Your task to perform on an android device: turn off notifications in google photos Image 0: 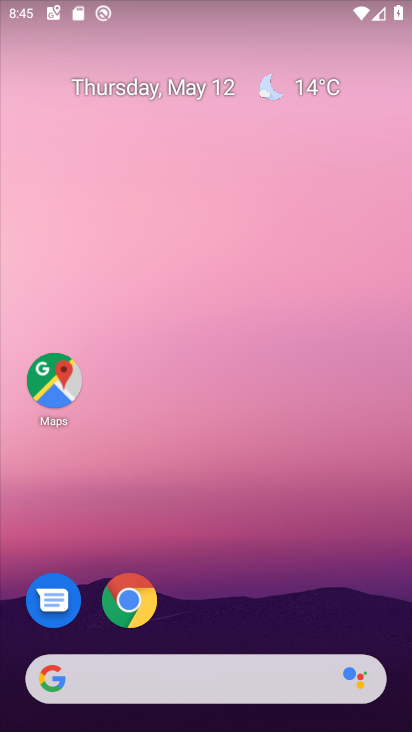
Step 0: drag from (377, 626) to (120, 90)
Your task to perform on an android device: turn off notifications in google photos Image 1: 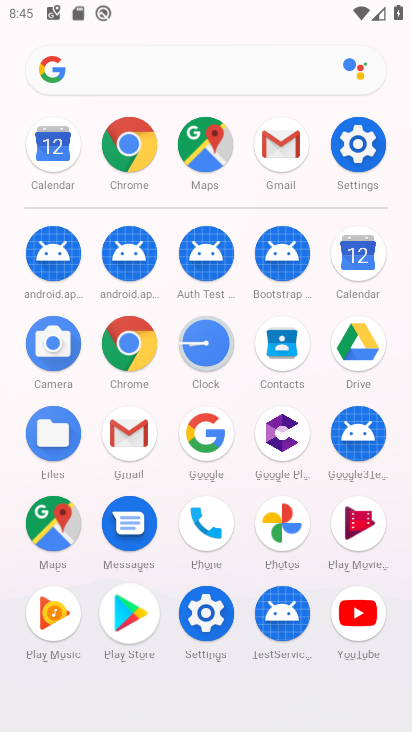
Step 1: drag from (273, 509) to (131, 20)
Your task to perform on an android device: turn off notifications in google photos Image 2: 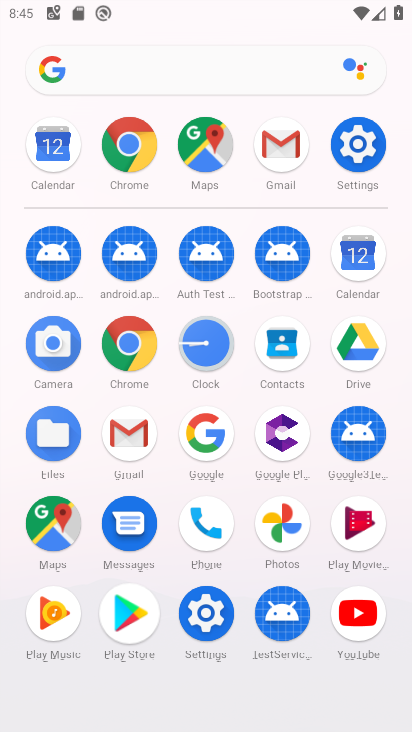
Step 2: drag from (288, 471) to (179, 63)
Your task to perform on an android device: turn off notifications in google photos Image 3: 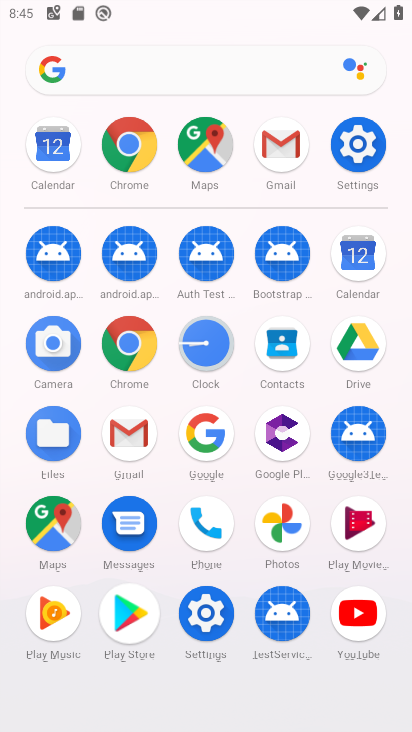
Step 3: click (282, 521)
Your task to perform on an android device: turn off notifications in google photos Image 4: 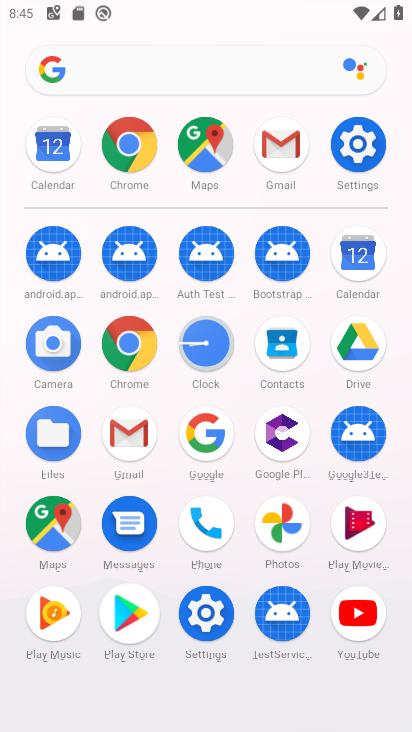
Step 4: click (282, 521)
Your task to perform on an android device: turn off notifications in google photos Image 5: 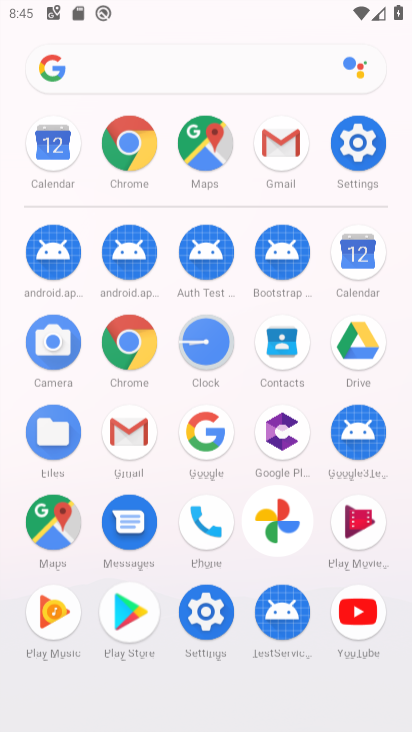
Step 5: click (281, 522)
Your task to perform on an android device: turn off notifications in google photos Image 6: 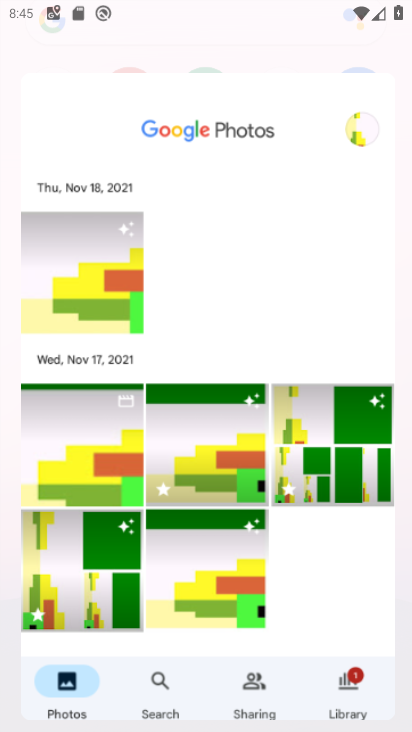
Step 6: click (281, 522)
Your task to perform on an android device: turn off notifications in google photos Image 7: 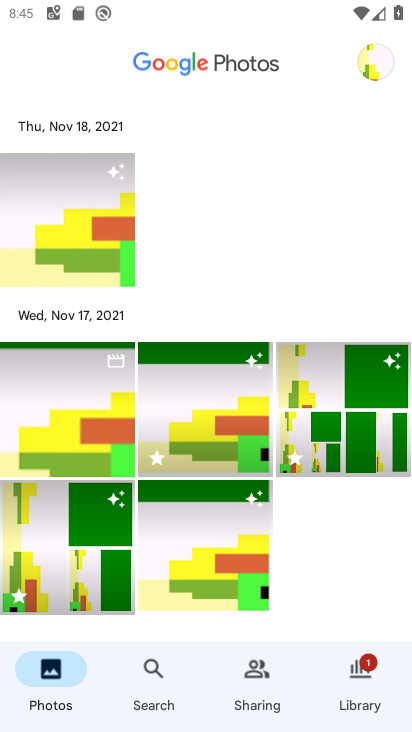
Step 7: drag from (190, 473) to (187, 185)
Your task to perform on an android device: turn off notifications in google photos Image 8: 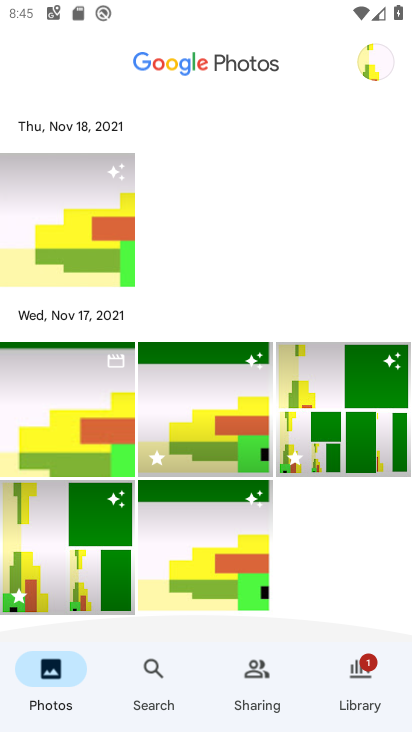
Step 8: drag from (110, 231) to (144, 567)
Your task to perform on an android device: turn off notifications in google photos Image 9: 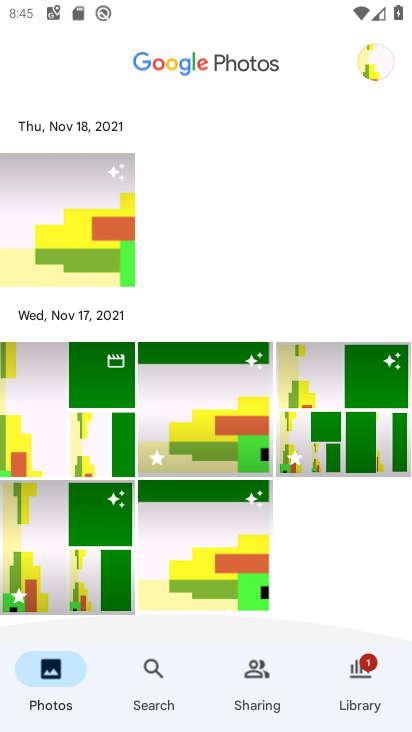
Step 9: drag from (138, 439) to (169, 584)
Your task to perform on an android device: turn off notifications in google photos Image 10: 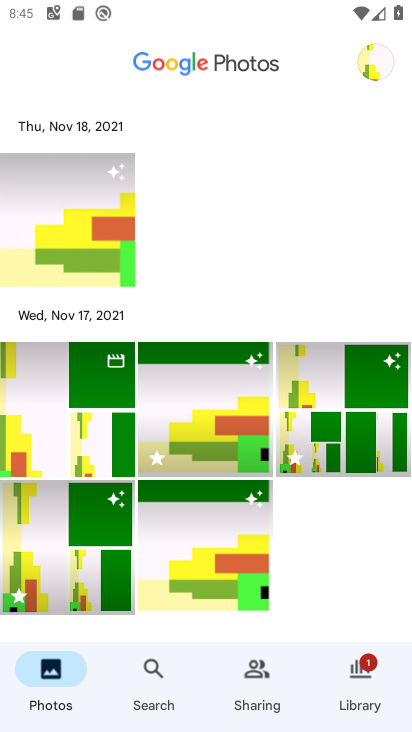
Step 10: drag from (198, 339) to (213, 505)
Your task to perform on an android device: turn off notifications in google photos Image 11: 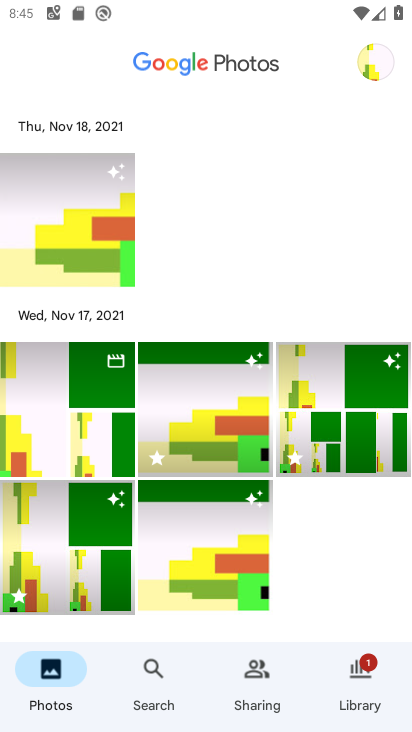
Step 11: click (240, 517)
Your task to perform on an android device: turn off notifications in google photos Image 12: 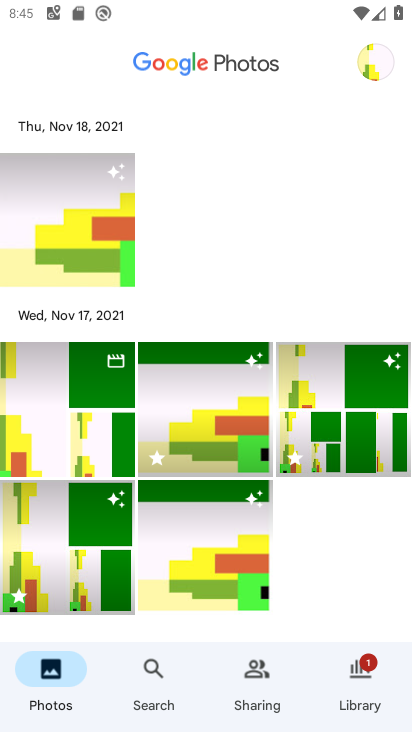
Step 12: drag from (180, 469) to (193, 571)
Your task to perform on an android device: turn off notifications in google photos Image 13: 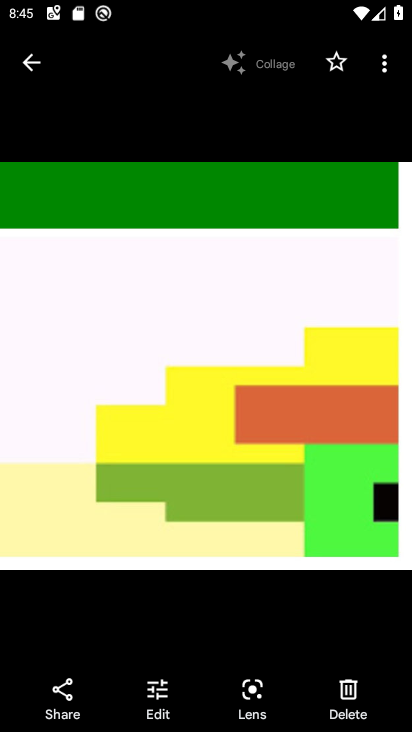
Step 13: click (29, 59)
Your task to perform on an android device: turn off notifications in google photos Image 14: 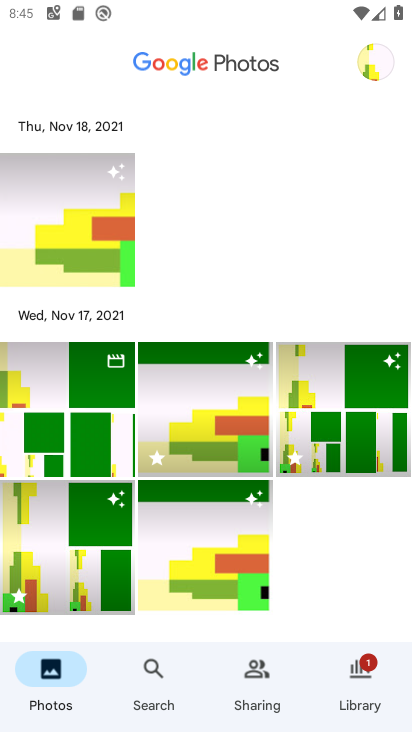
Step 14: task complete